Your task to perform on an android device: Open Chrome and go to settings Image 0: 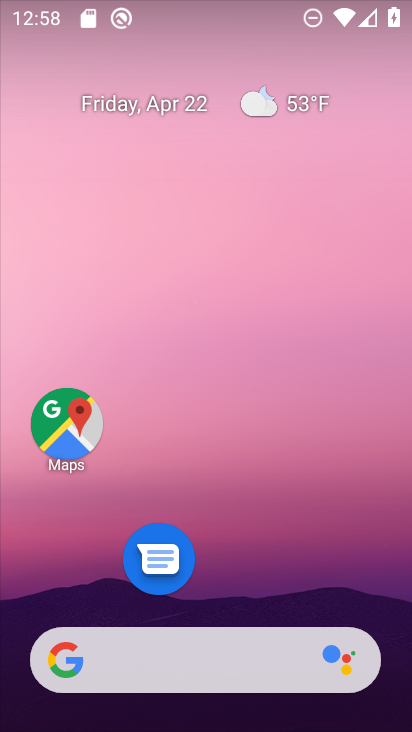
Step 0: drag from (235, 726) to (220, 279)
Your task to perform on an android device: Open Chrome and go to settings Image 1: 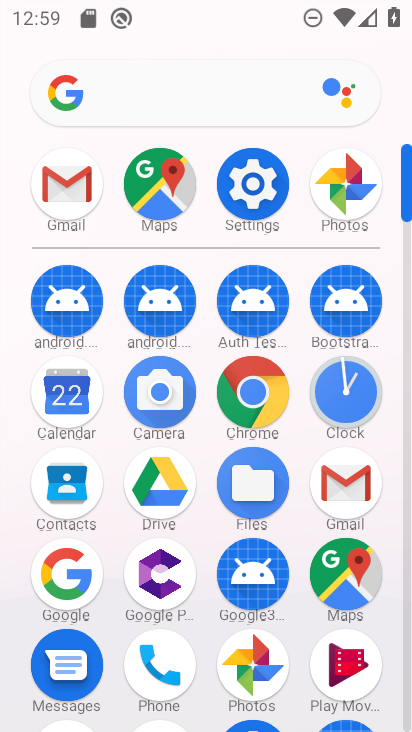
Step 1: click (255, 407)
Your task to perform on an android device: Open Chrome and go to settings Image 2: 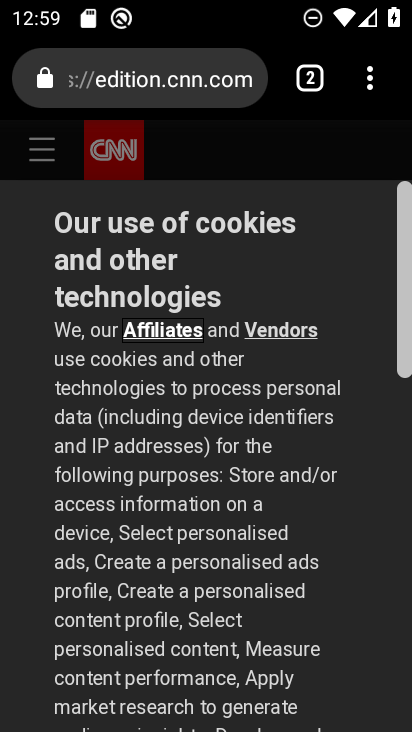
Step 2: task complete